Your task to perform on an android device: Open Chrome and go to the settings page Image 0: 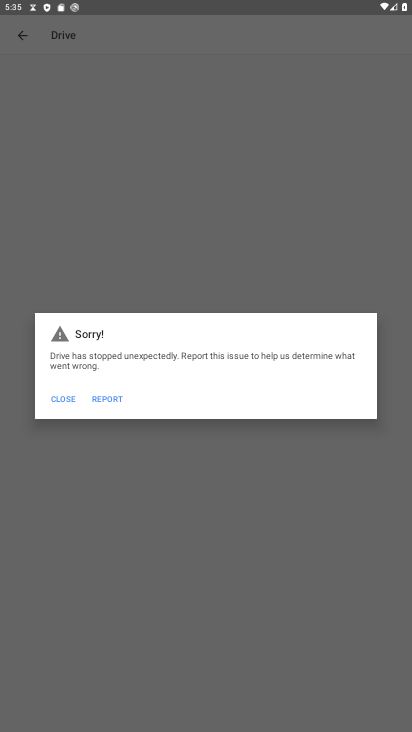
Step 0: press home button
Your task to perform on an android device: Open Chrome and go to the settings page Image 1: 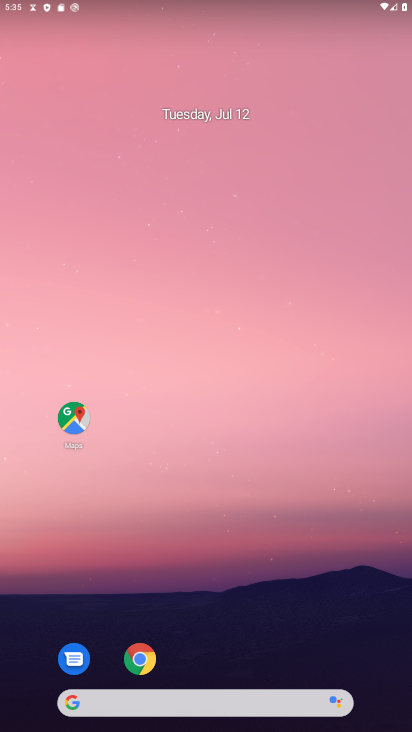
Step 1: drag from (196, 631) to (213, 174)
Your task to perform on an android device: Open Chrome and go to the settings page Image 2: 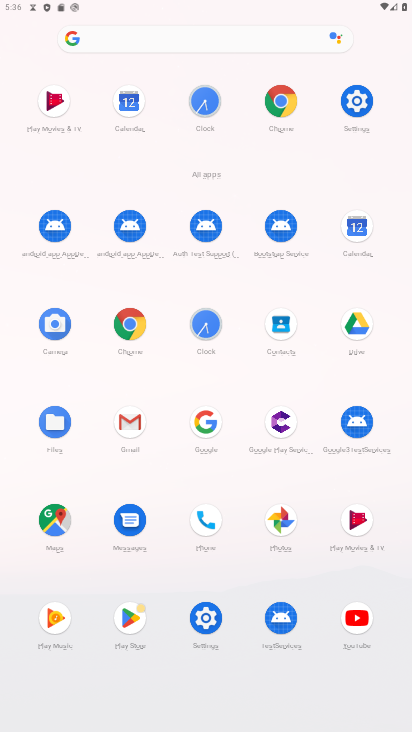
Step 2: click (136, 326)
Your task to perform on an android device: Open Chrome and go to the settings page Image 3: 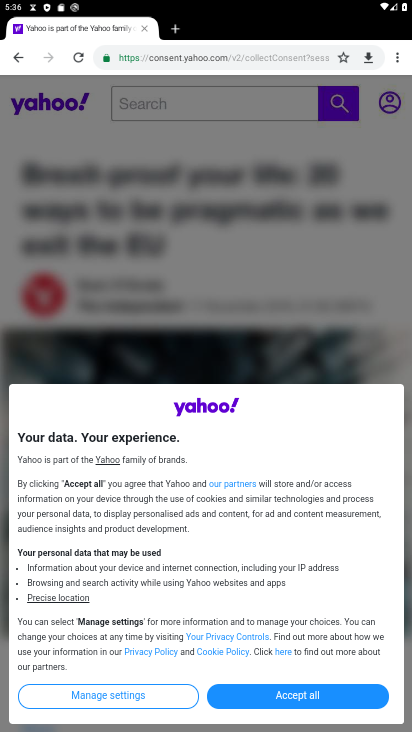
Step 3: click (399, 62)
Your task to perform on an android device: Open Chrome and go to the settings page Image 4: 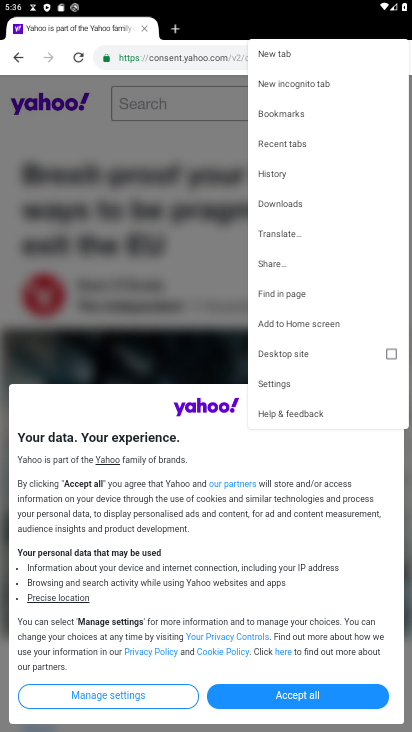
Step 4: click (303, 384)
Your task to perform on an android device: Open Chrome and go to the settings page Image 5: 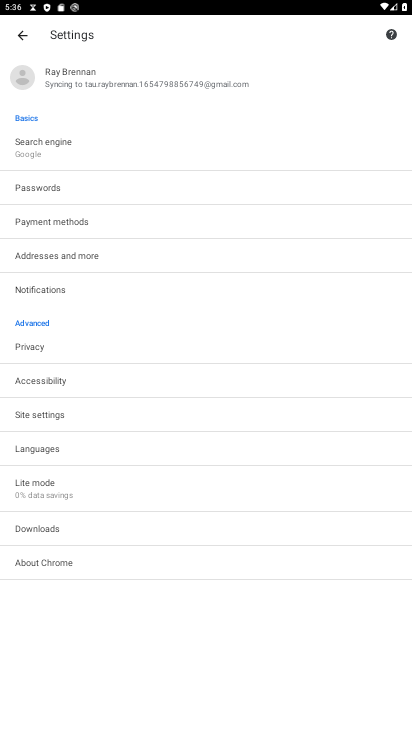
Step 5: task complete